Your task to perform on an android device: set the stopwatch Image 0: 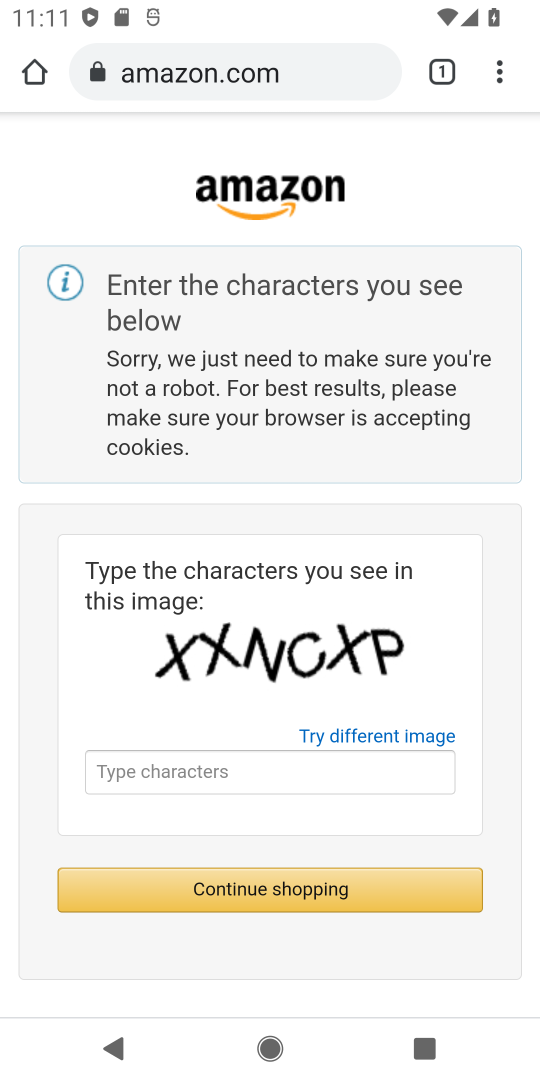
Step 0: press home button
Your task to perform on an android device: set the stopwatch Image 1: 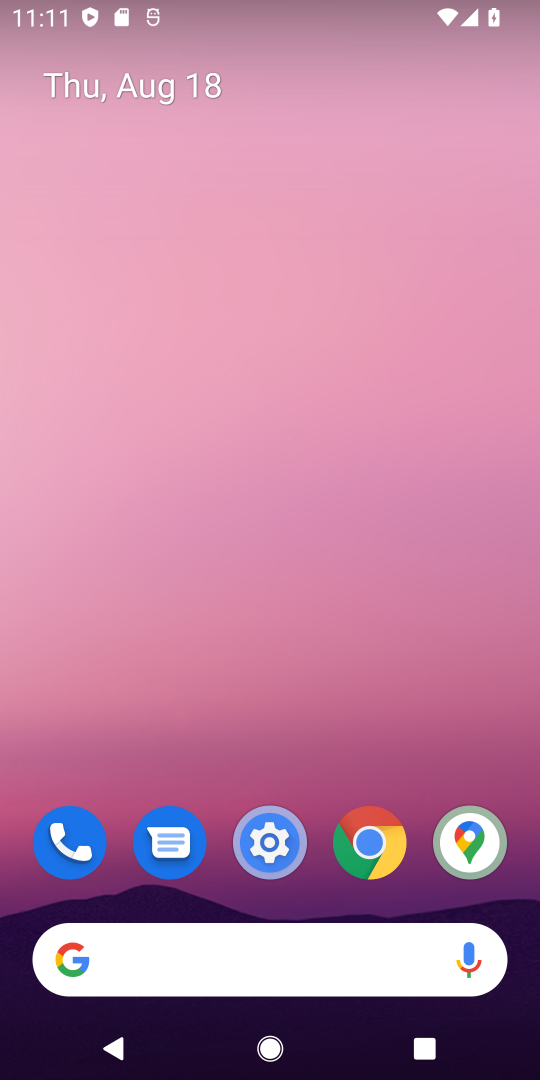
Step 1: drag from (246, 910) to (262, 9)
Your task to perform on an android device: set the stopwatch Image 2: 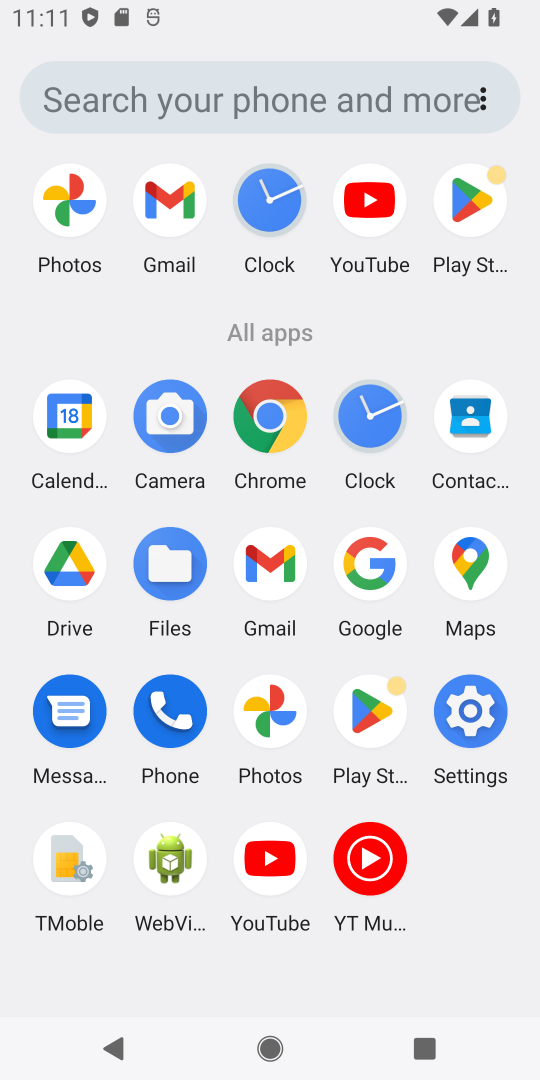
Step 2: click (468, 700)
Your task to perform on an android device: set the stopwatch Image 3: 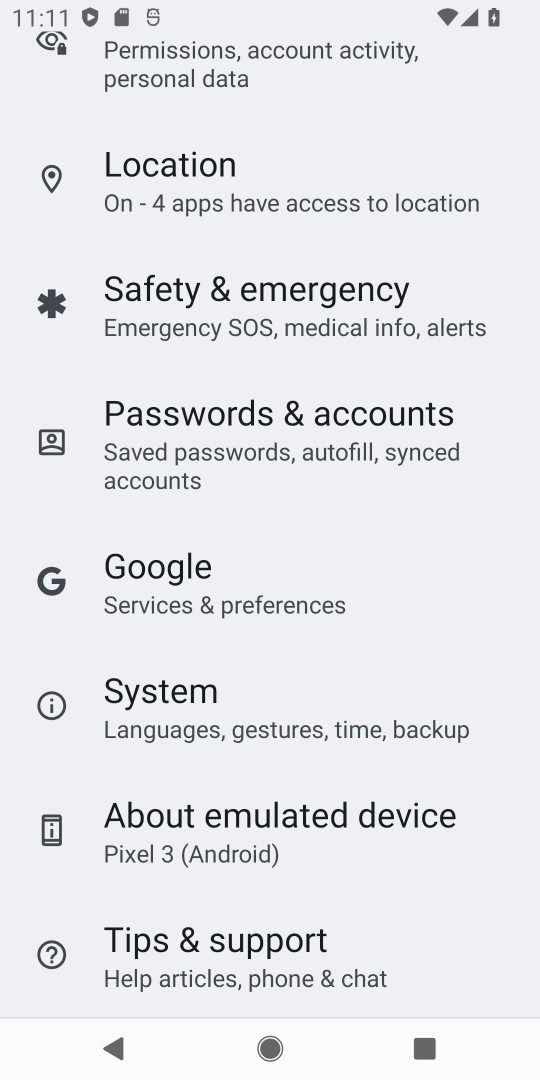
Step 3: press back button
Your task to perform on an android device: set the stopwatch Image 4: 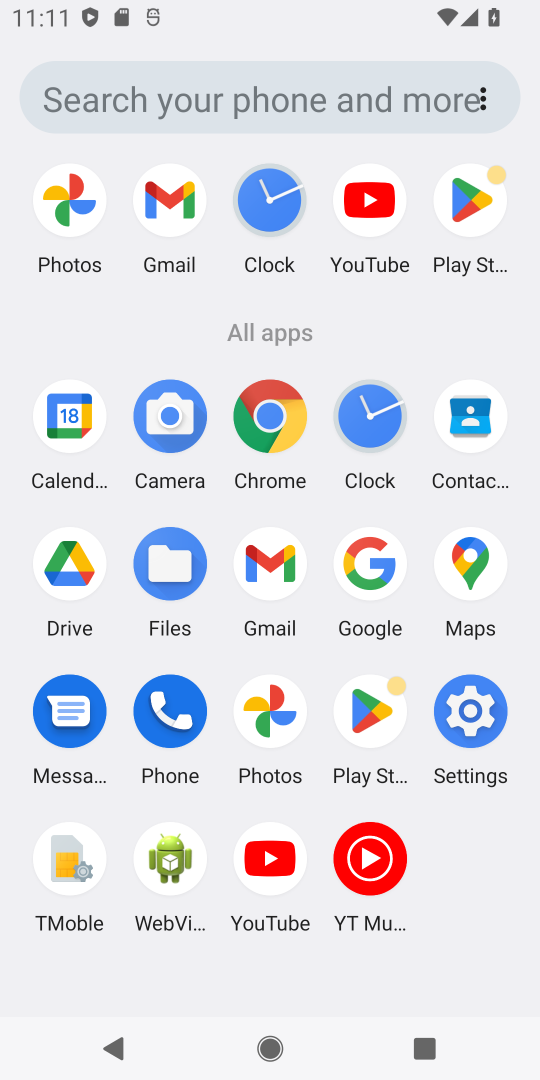
Step 4: click (383, 414)
Your task to perform on an android device: set the stopwatch Image 5: 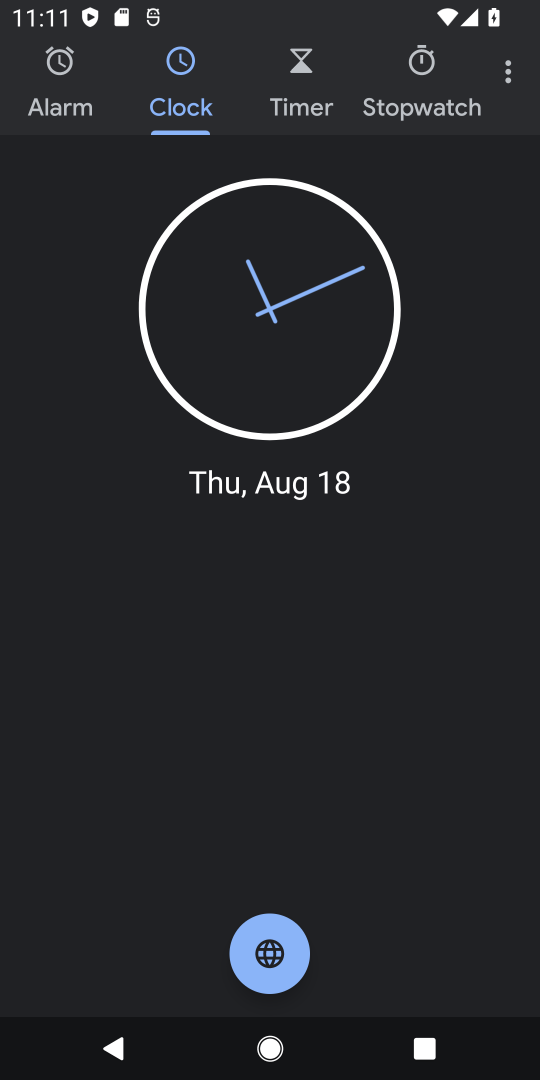
Step 5: click (413, 109)
Your task to perform on an android device: set the stopwatch Image 6: 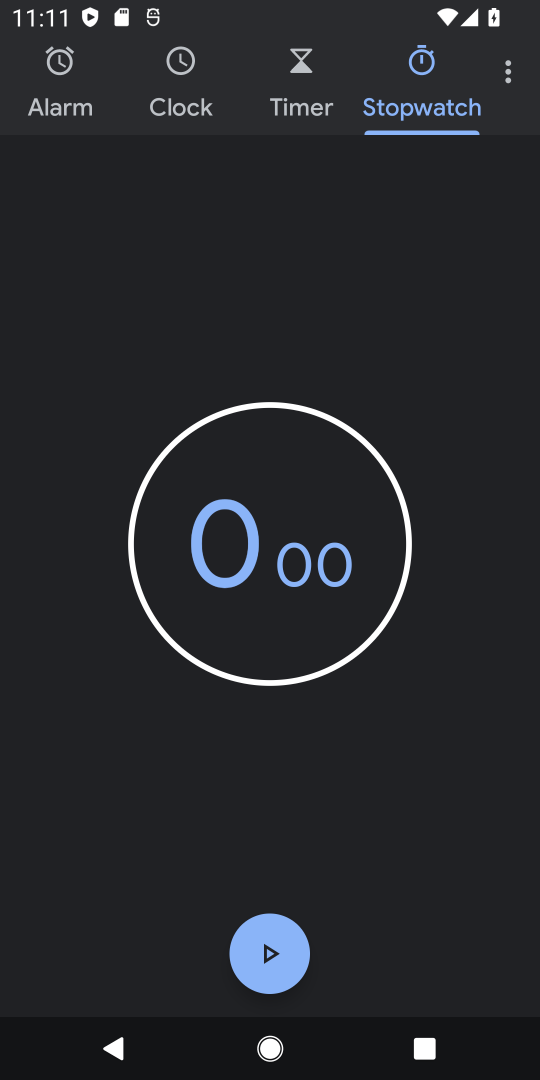
Step 6: task complete